Your task to perform on an android device: Search for Italian restaurants on Maps Image 0: 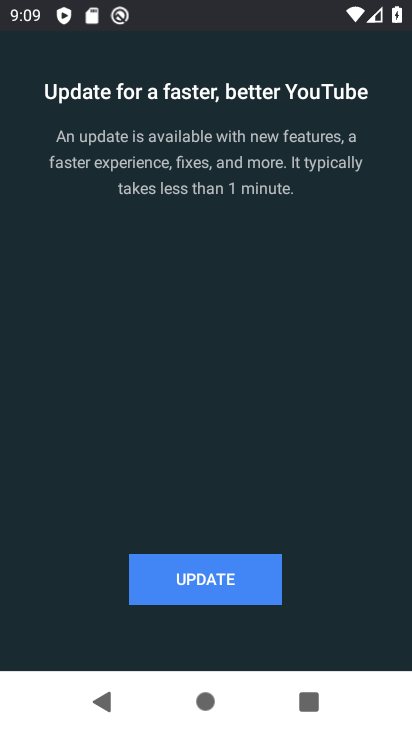
Step 0: press home button
Your task to perform on an android device: Search for Italian restaurants on Maps Image 1: 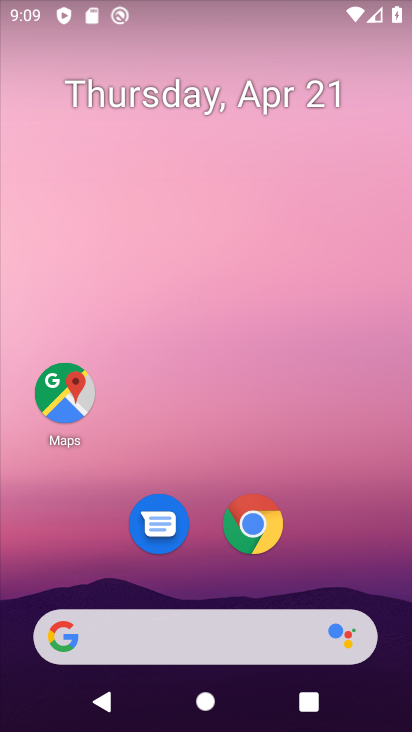
Step 1: click (55, 393)
Your task to perform on an android device: Search for Italian restaurants on Maps Image 2: 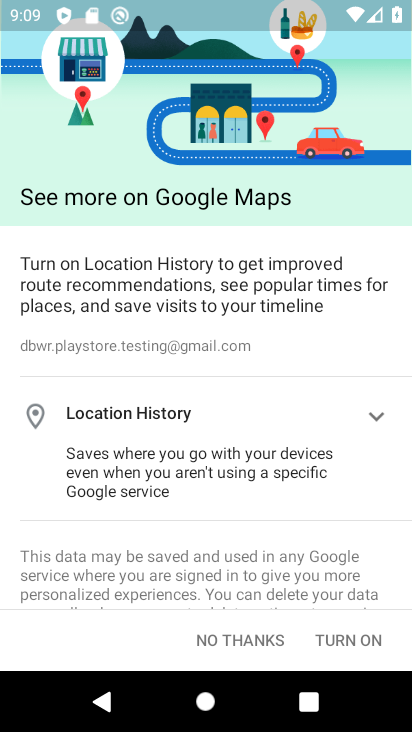
Step 2: click (261, 635)
Your task to perform on an android device: Search for Italian restaurants on Maps Image 3: 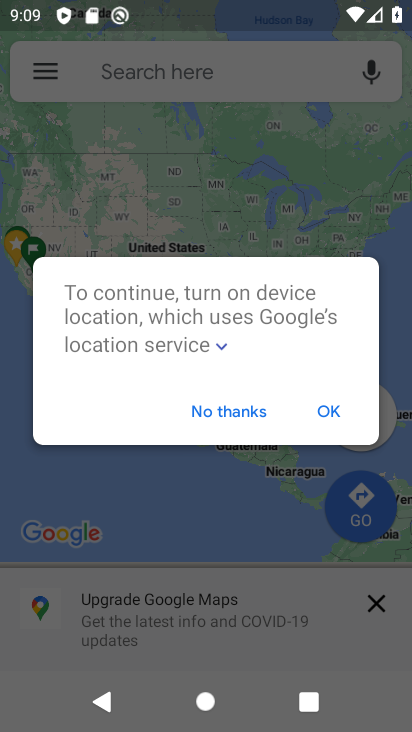
Step 3: click (240, 405)
Your task to perform on an android device: Search for Italian restaurants on Maps Image 4: 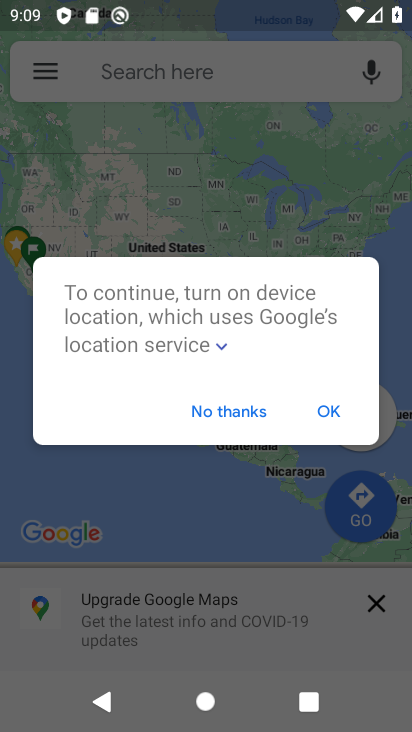
Step 4: click (240, 402)
Your task to perform on an android device: Search for Italian restaurants on Maps Image 5: 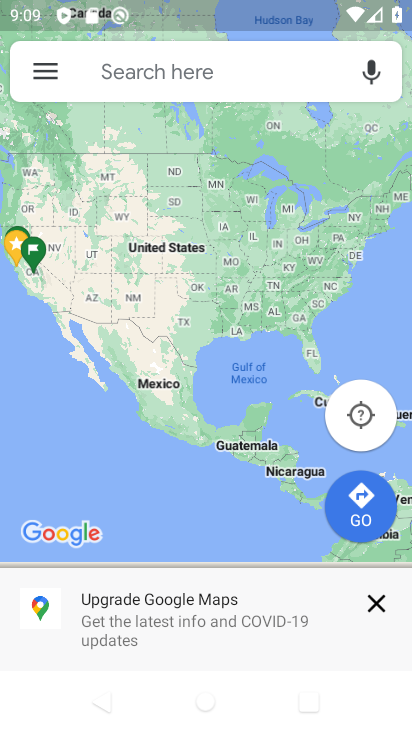
Step 5: click (231, 71)
Your task to perform on an android device: Search for Italian restaurants on Maps Image 6: 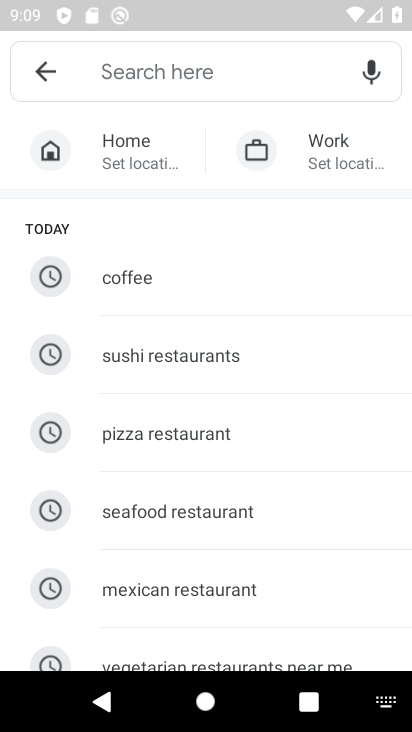
Step 6: drag from (282, 574) to (284, 275)
Your task to perform on an android device: Search for Italian restaurants on Maps Image 7: 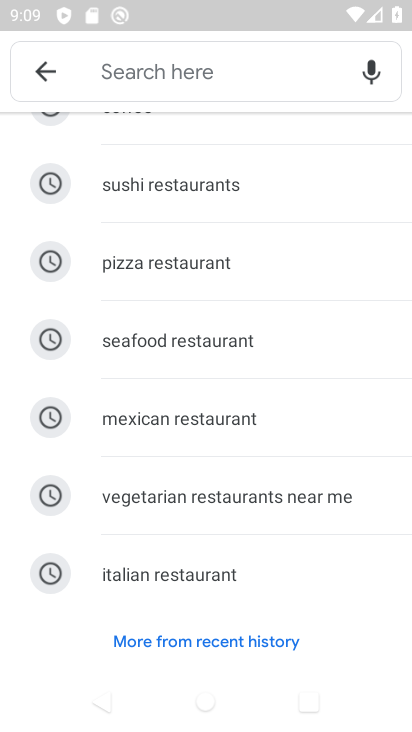
Step 7: click (234, 569)
Your task to perform on an android device: Search for Italian restaurants on Maps Image 8: 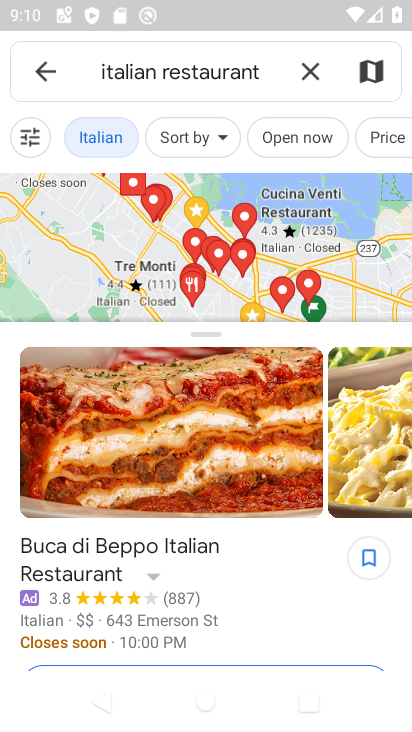
Step 8: task complete